Your task to perform on an android device: Go to battery settings Image 0: 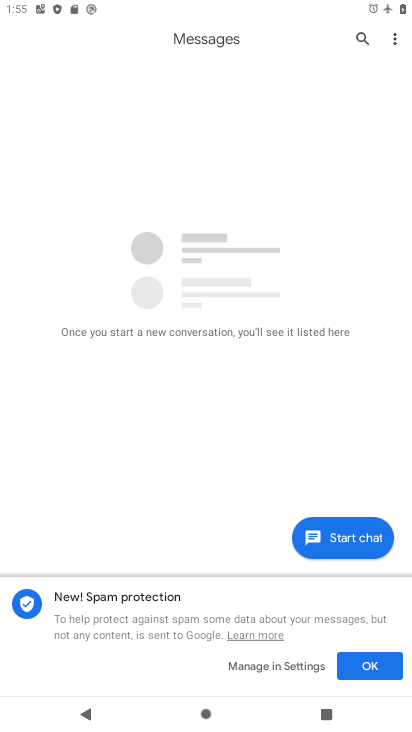
Step 0: press home button
Your task to perform on an android device: Go to battery settings Image 1: 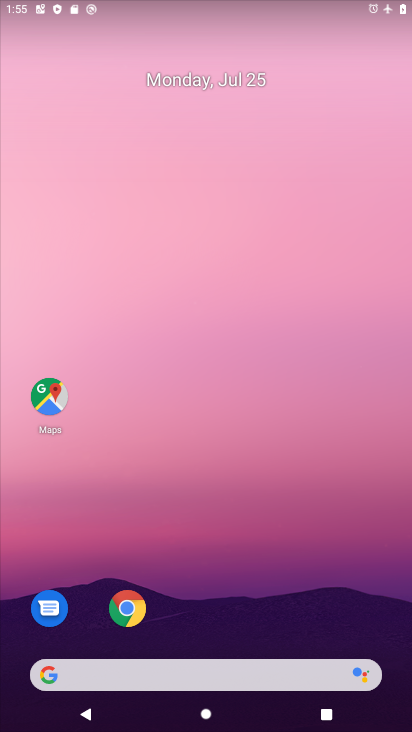
Step 1: drag from (346, 614) to (220, 98)
Your task to perform on an android device: Go to battery settings Image 2: 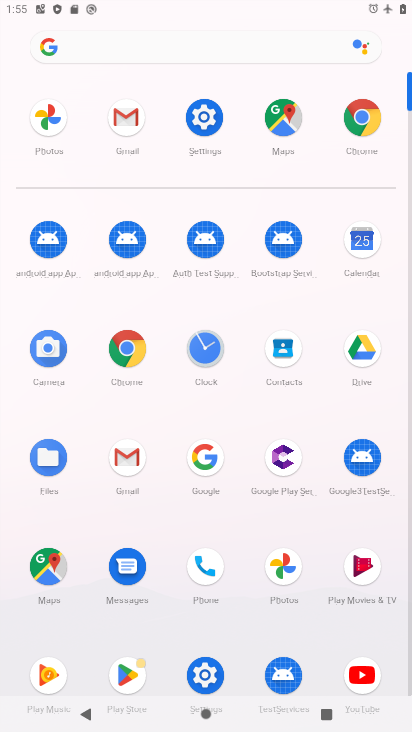
Step 2: click (206, 117)
Your task to perform on an android device: Go to battery settings Image 3: 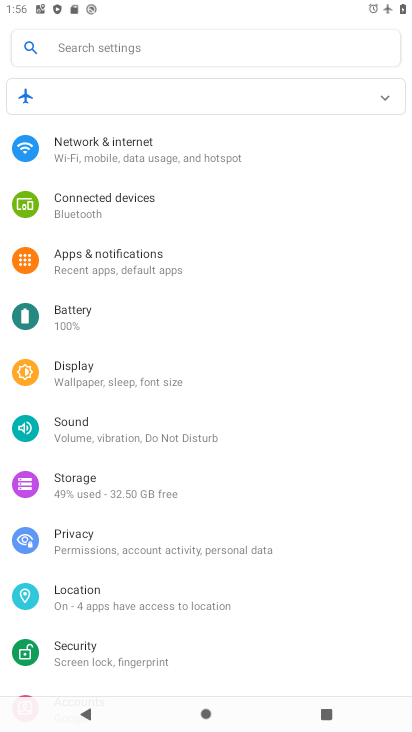
Step 3: click (97, 312)
Your task to perform on an android device: Go to battery settings Image 4: 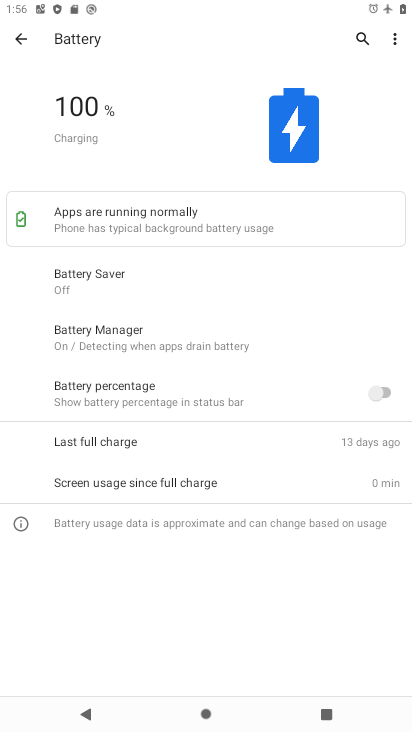
Step 4: task complete